Your task to perform on an android device: turn off notifications in google photos Image 0: 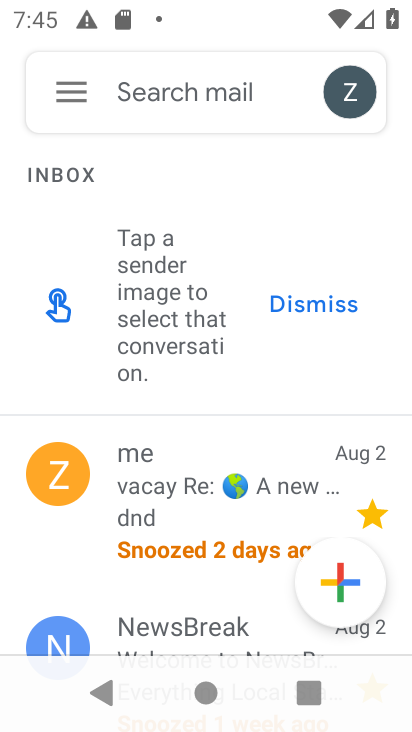
Step 0: press enter
Your task to perform on an android device: turn off notifications in google photos Image 1: 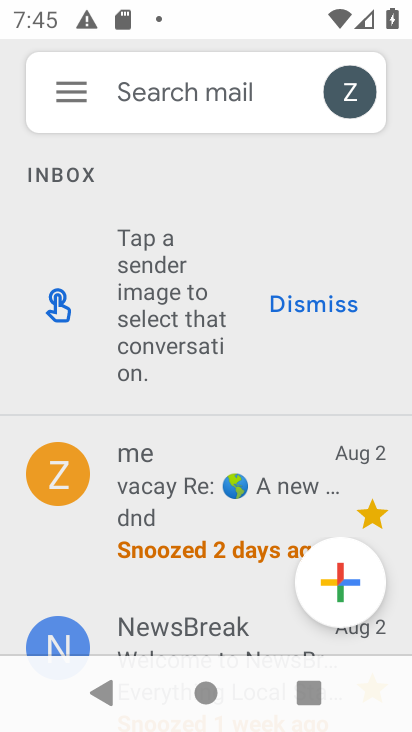
Step 1: press enter
Your task to perform on an android device: turn off notifications in google photos Image 2: 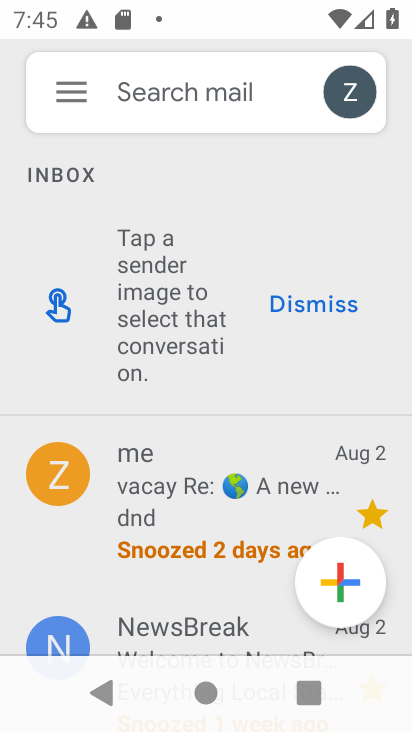
Step 2: press home button
Your task to perform on an android device: turn off notifications in google photos Image 3: 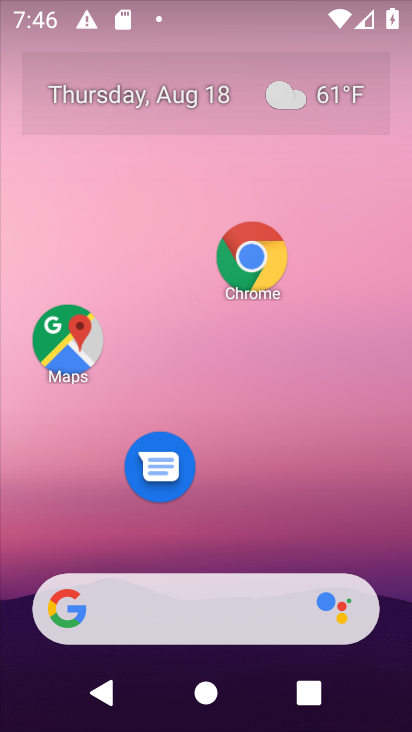
Step 3: drag from (322, 536) to (323, 57)
Your task to perform on an android device: turn off notifications in google photos Image 4: 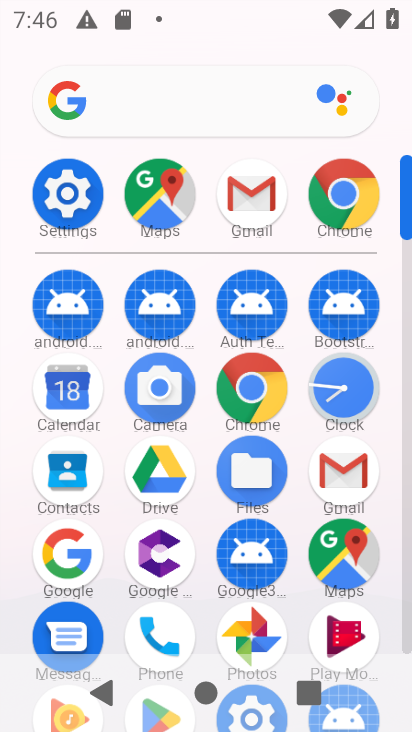
Step 4: click (241, 632)
Your task to perform on an android device: turn off notifications in google photos Image 5: 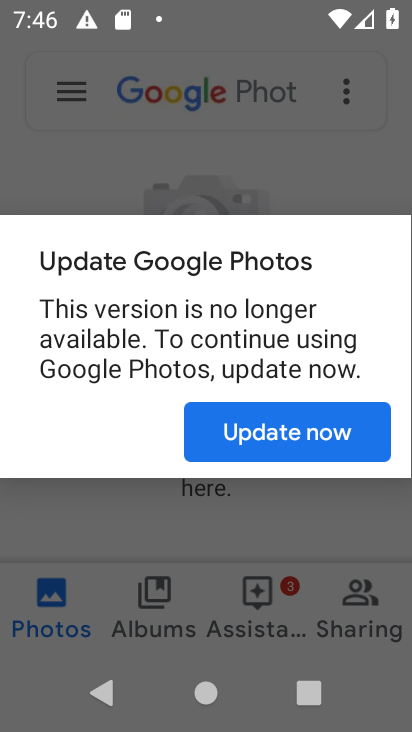
Step 5: task complete